Your task to perform on an android device: check battery use Image 0: 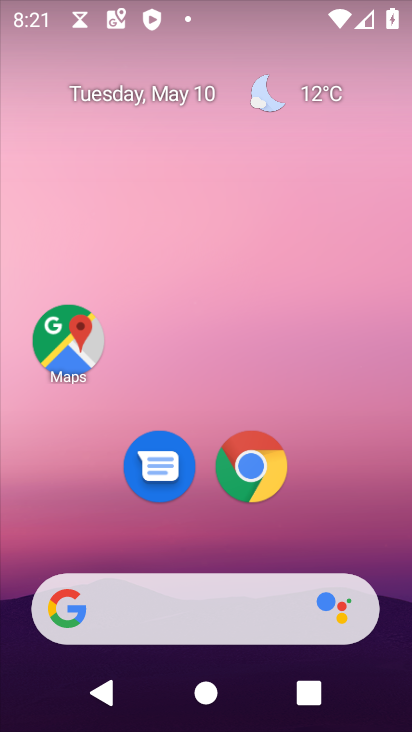
Step 0: drag from (212, 553) to (287, 46)
Your task to perform on an android device: check battery use Image 1: 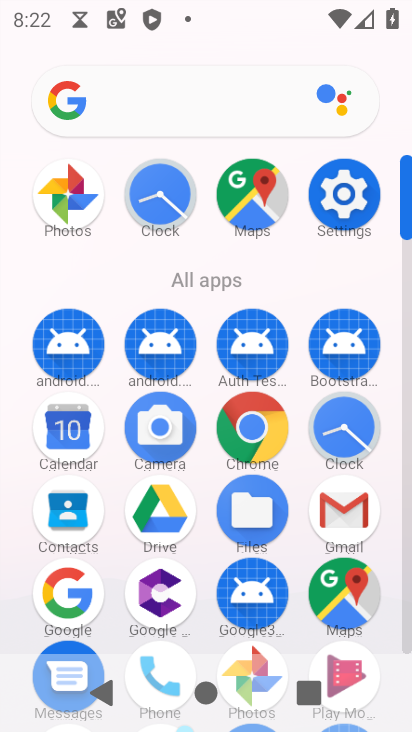
Step 1: click (336, 212)
Your task to perform on an android device: check battery use Image 2: 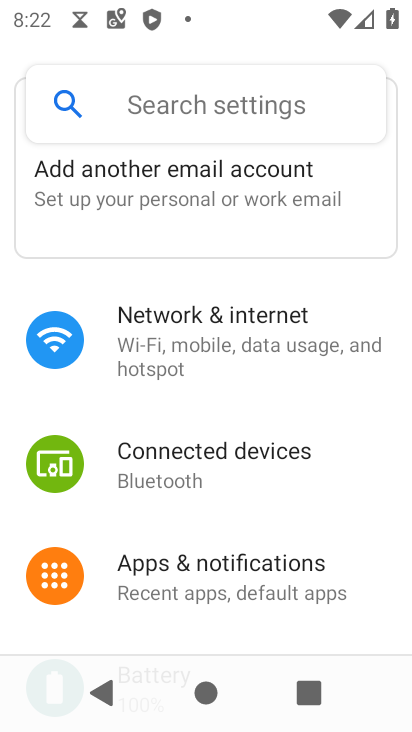
Step 2: drag from (223, 550) to (271, 256)
Your task to perform on an android device: check battery use Image 3: 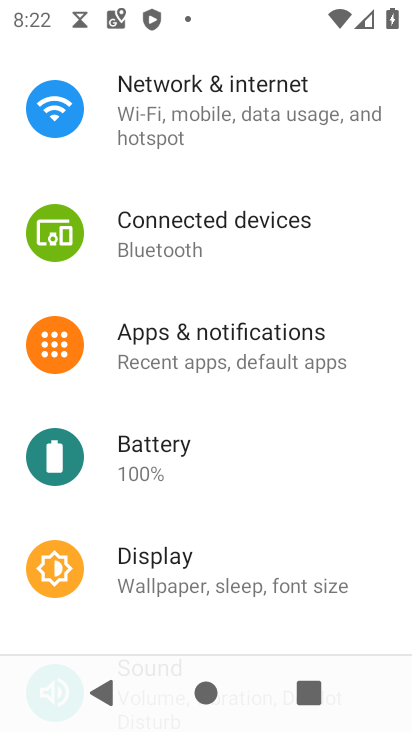
Step 3: click (198, 466)
Your task to perform on an android device: check battery use Image 4: 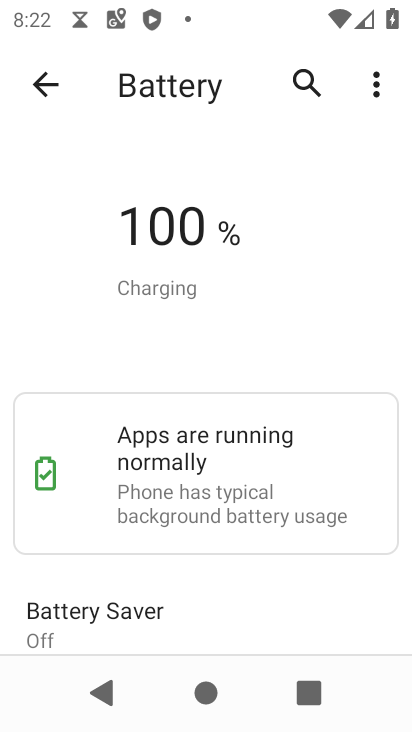
Step 4: drag from (182, 582) to (189, 509)
Your task to perform on an android device: check battery use Image 5: 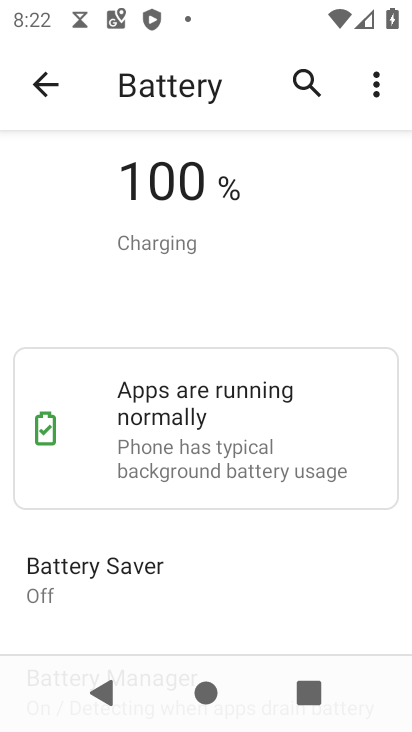
Step 5: click (377, 85)
Your task to perform on an android device: check battery use Image 6: 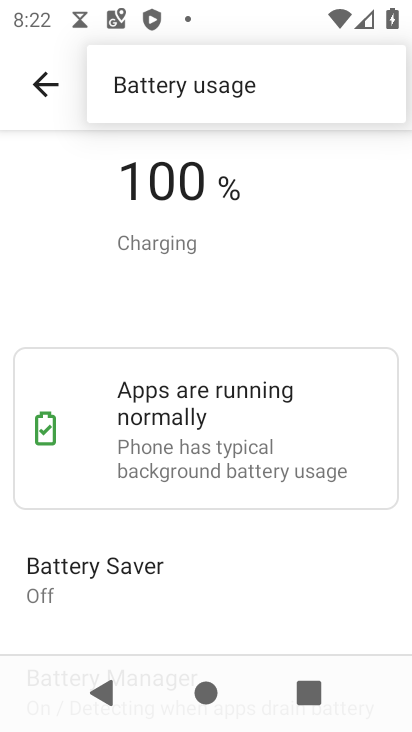
Step 6: click (222, 97)
Your task to perform on an android device: check battery use Image 7: 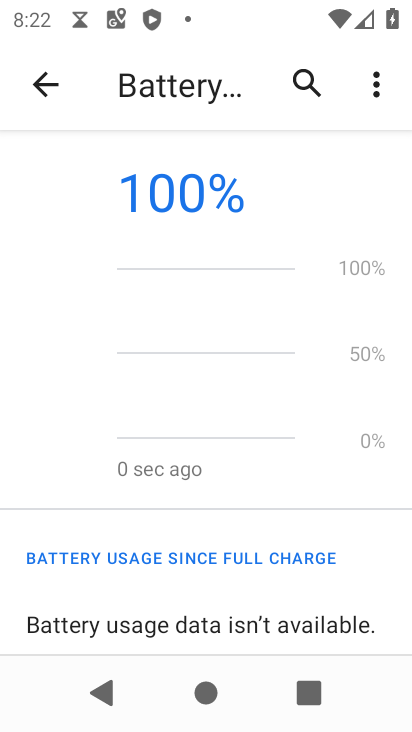
Step 7: task complete